Your task to perform on an android device: turn on location history Image 0: 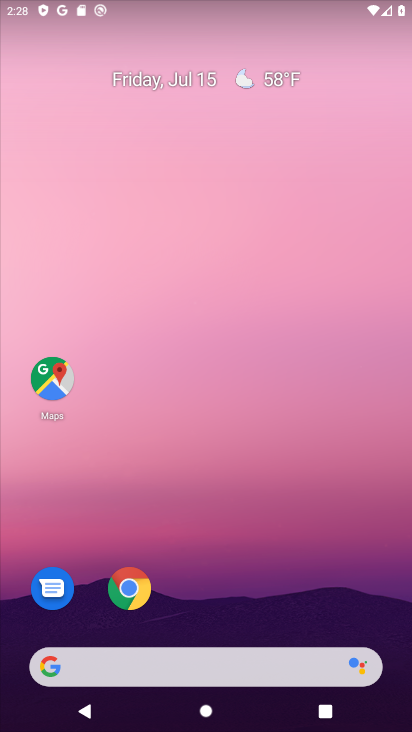
Step 0: drag from (242, 612) to (152, 19)
Your task to perform on an android device: turn on location history Image 1: 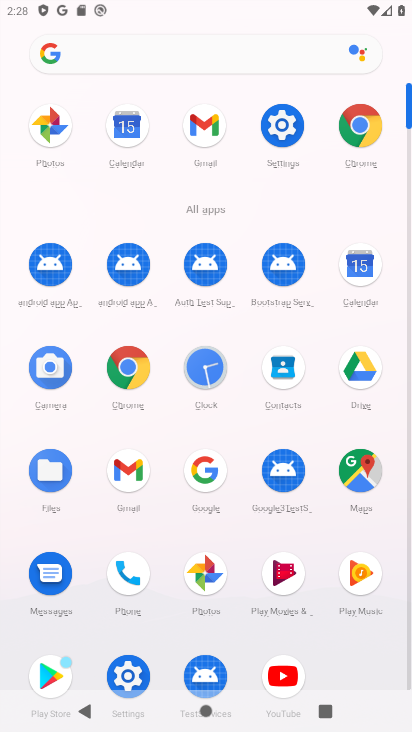
Step 1: click (265, 156)
Your task to perform on an android device: turn on location history Image 2: 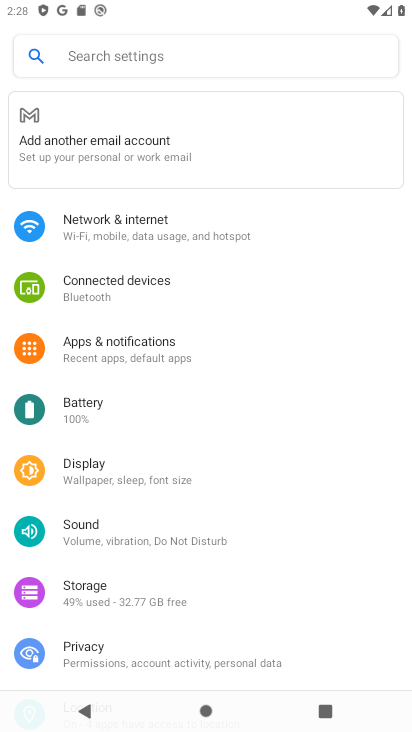
Step 2: drag from (136, 545) to (157, 403)
Your task to perform on an android device: turn on location history Image 3: 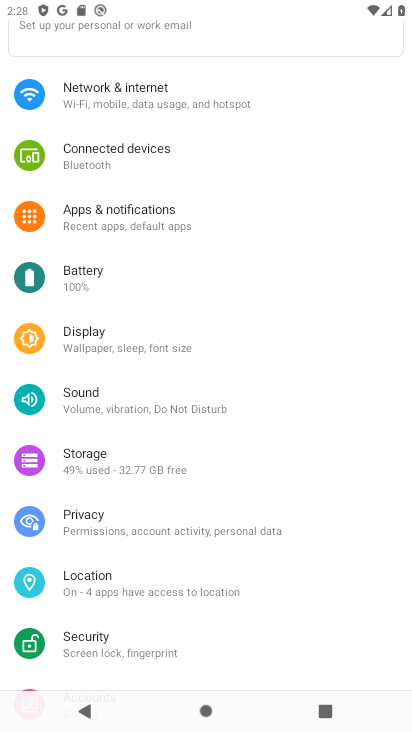
Step 3: click (161, 564)
Your task to perform on an android device: turn on location history Image 4: 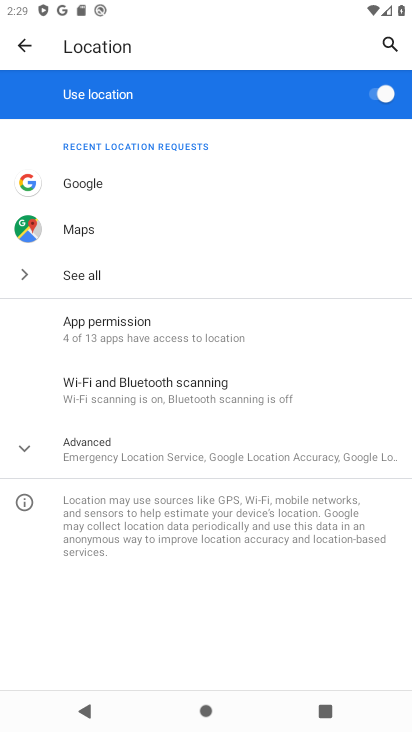
Step 4: click (119, 471)
Your task to perform on an android device: turn on location history Image 5: 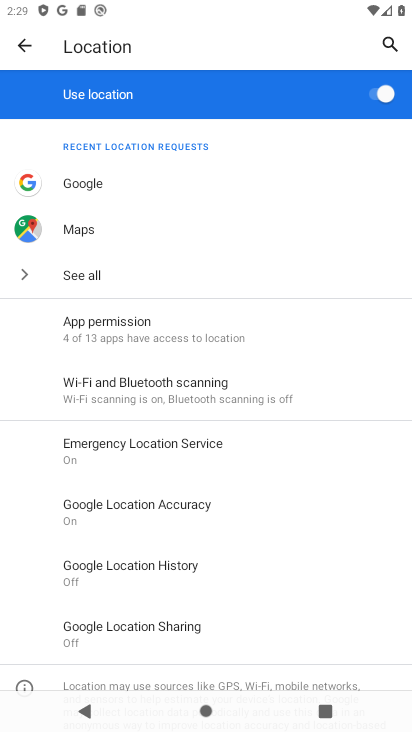
Step 5: click (136, 553)
Your task to perform on an android device: turn on location history Image 6: 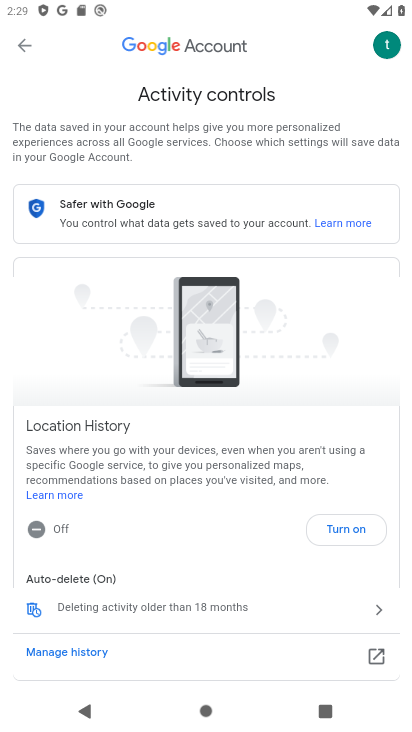
Step 6: task complete